Your task to perform on an android device: check out phone information Image 0: 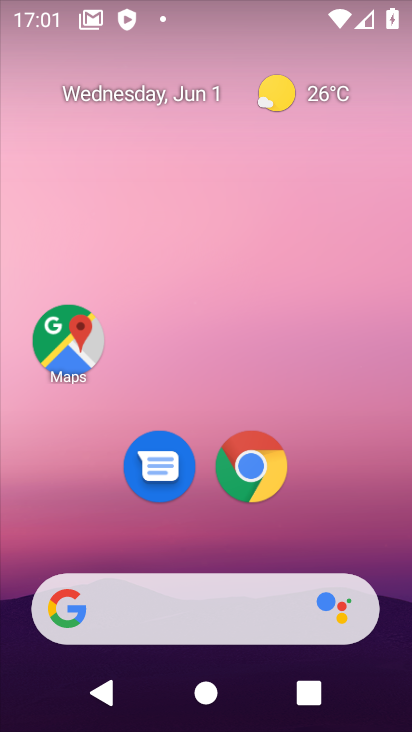
Step 0: drag from (326, 495) to (205, 54)
Your task to perform on an android device: check out phone information Image 1: 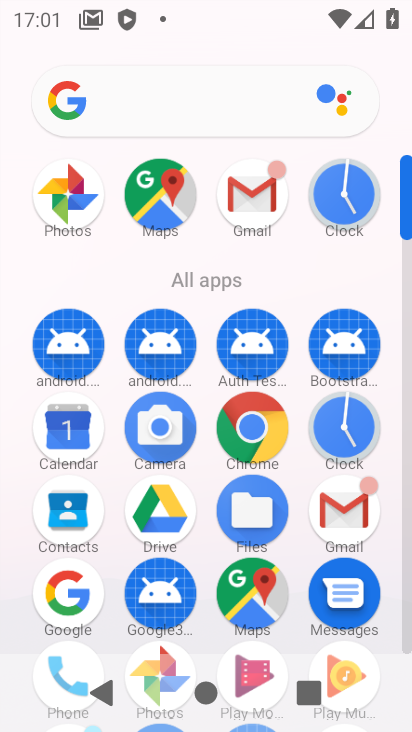
Step 1: drag from (215, 544) to (200, 98)
Your task to perform on an android device: check out phone information Image 2: 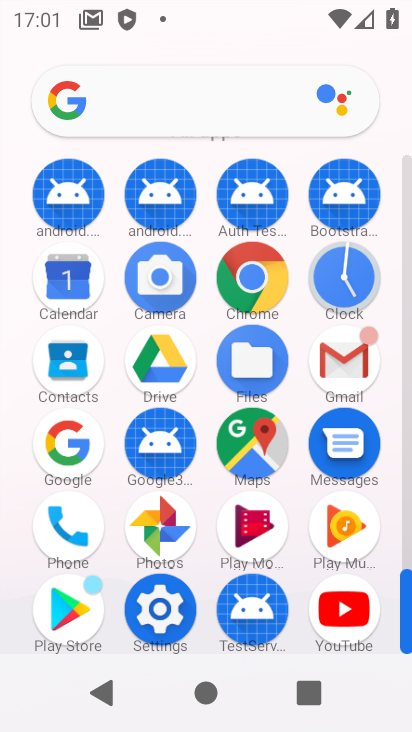
Step 2: click (161, 610)
Your task to perform on an android device: check out phone information Image 3: 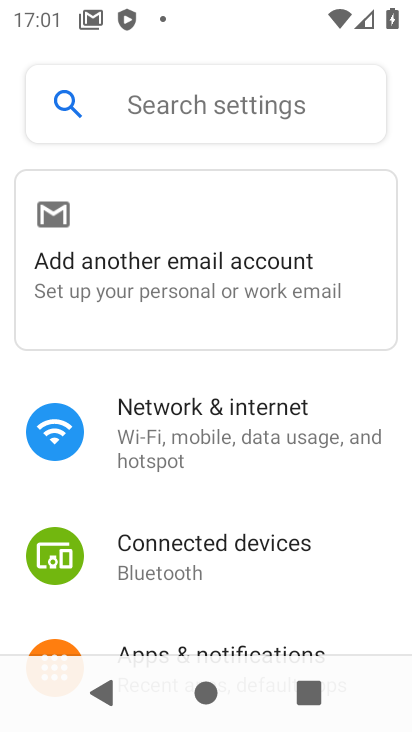
Step 3: drag from (230, 554) to (196, 15)
Your task to perform on an android device: check out phone information Image 4: 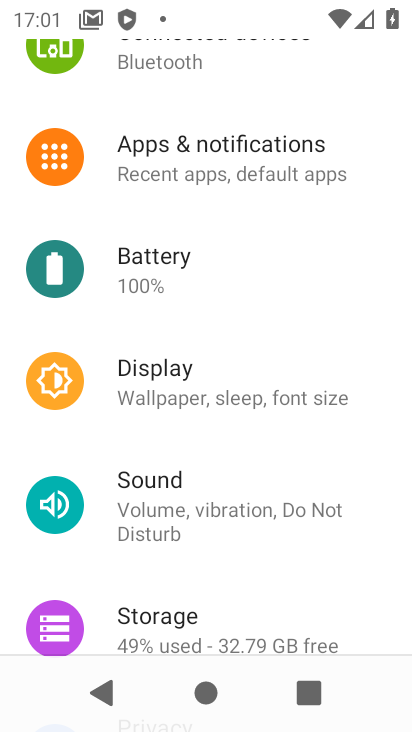
Step 4: drag from (253, 558) to (228, 101)
Your task to perform on an android device: check out phone information Image 5: 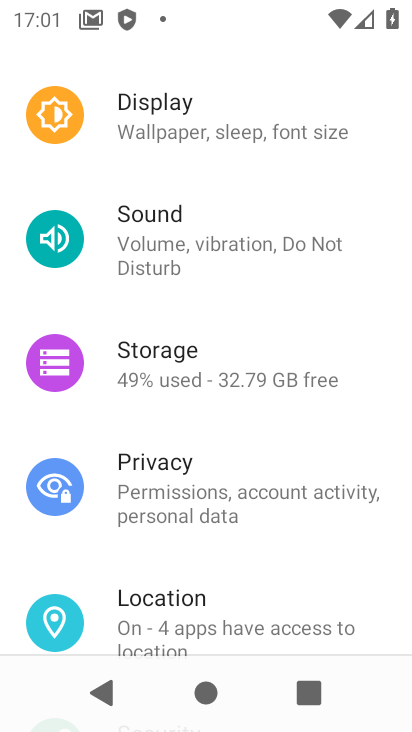
Step 5: drag from (211, 535) to (210, 202)
Your task to perform on an android device: check out phone information Image 6: 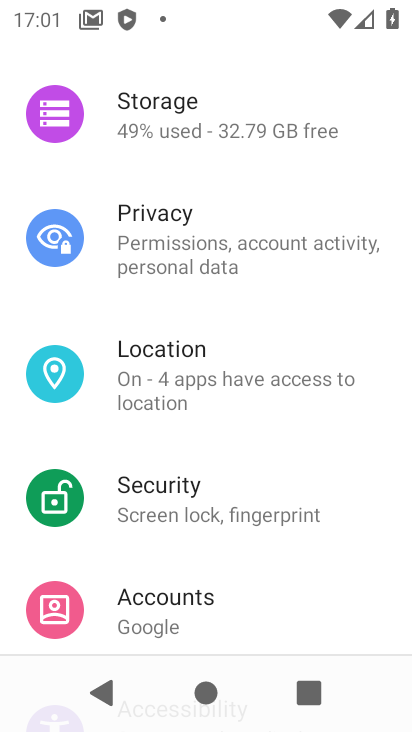
Step 6: drag from (237, 562) to (200, 133)
Your task to perform on an android device: check out phone information Image 7: 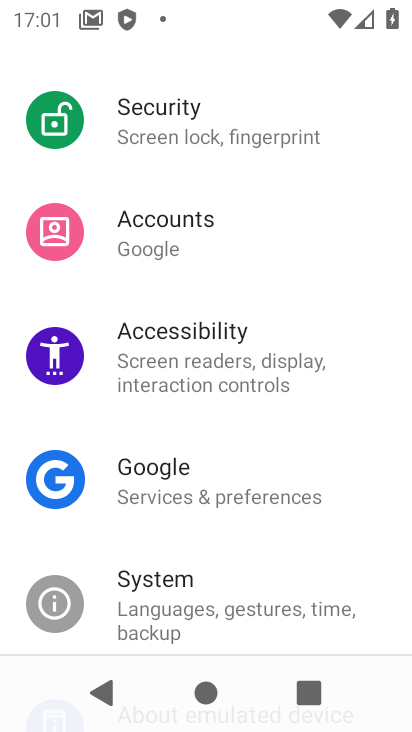
Step 7: drag from (209, 519) to (154, 93)
Your task to perform on an android device: check out phone information Image 8: 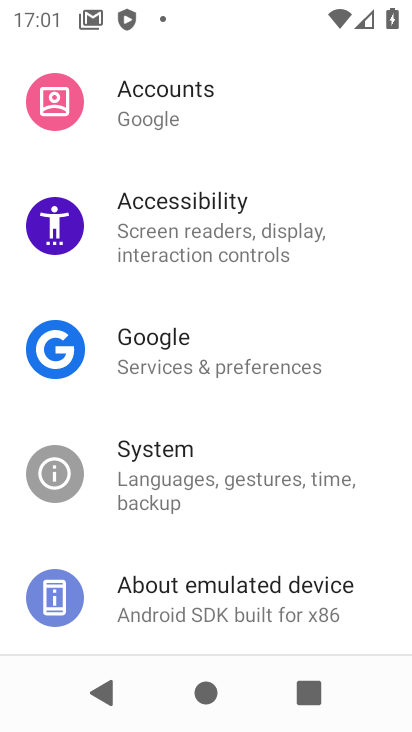
Step 8: click (202, 580)
Your task to perform on an android device: check out phone information Image 9: 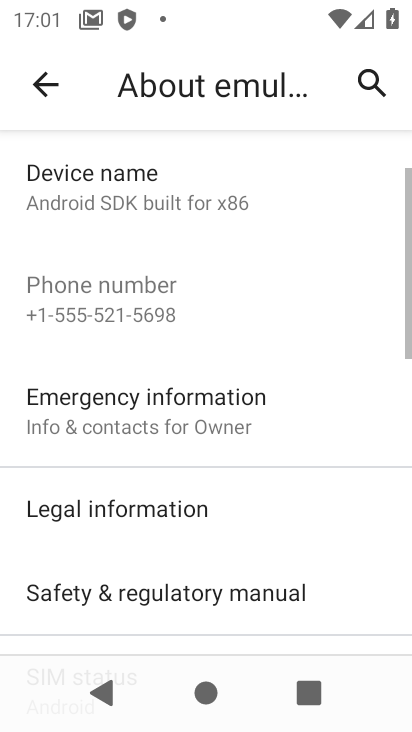
Step 9: task complete